Your task to perform on an android device: Open calendar and show me the second week of next month Image 0: 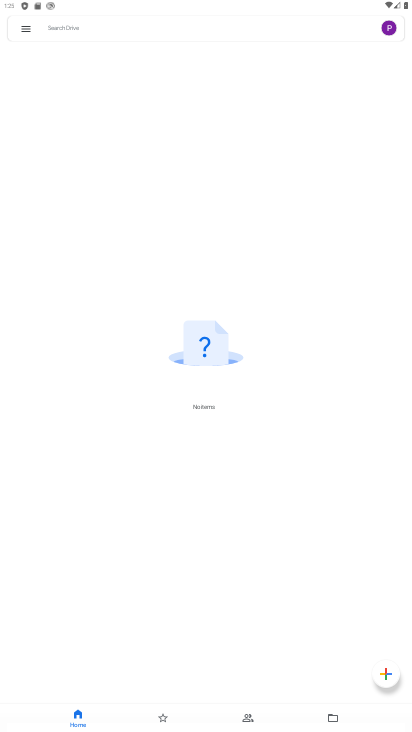
Step 0: press home button
Your task to perform on an android device: Open calendar and show me the second week of next month Image 1: 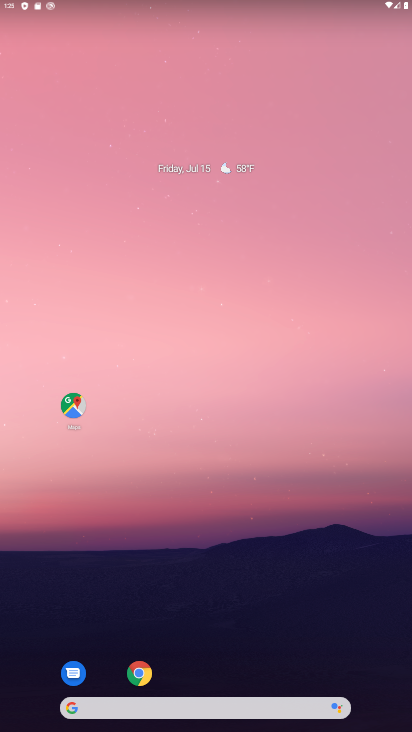
Step 1: drag from (228, 673) to (271, 112)
Your task to perform on an android device: Open calendar and show me the second week of next month Image 2: 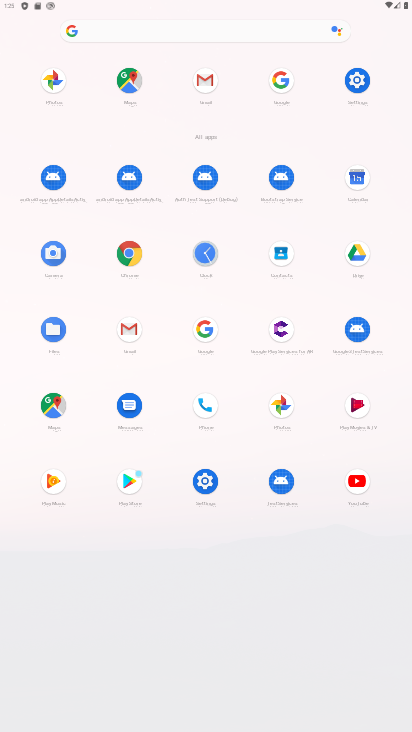
Step 2: click (353, 179)
Your task to perform on an android device: Open calendar and show me the second week of next month Image 3: 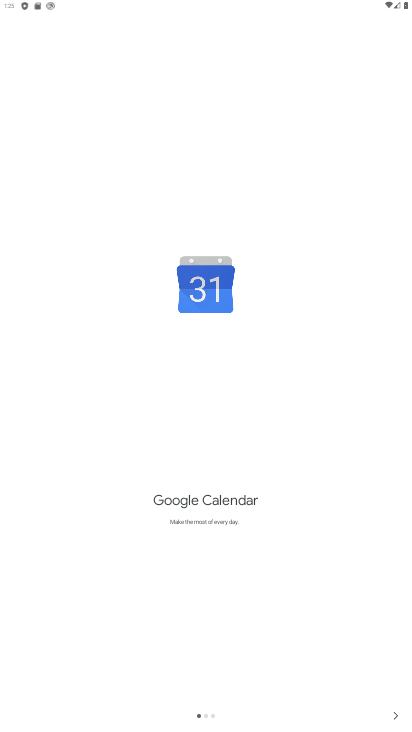
Step 3: click (400, 712)
Your task to perform on an android device: Open calendar and show me the second week of next month Image 4: 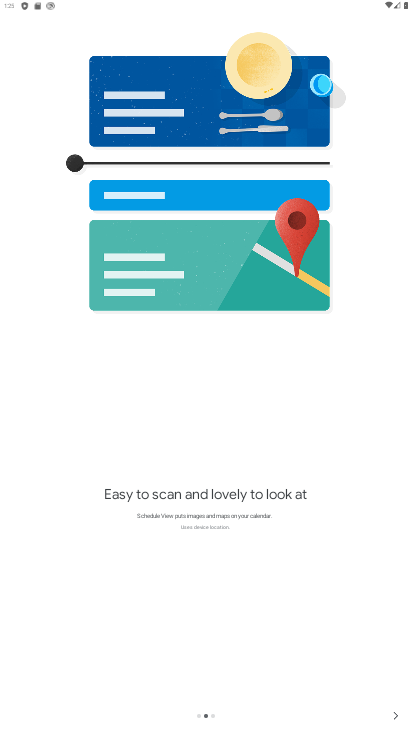
Step 4: click (392, 713)
Your task to perform on an android device: Open calendar and show me the second week of next month Image 5: 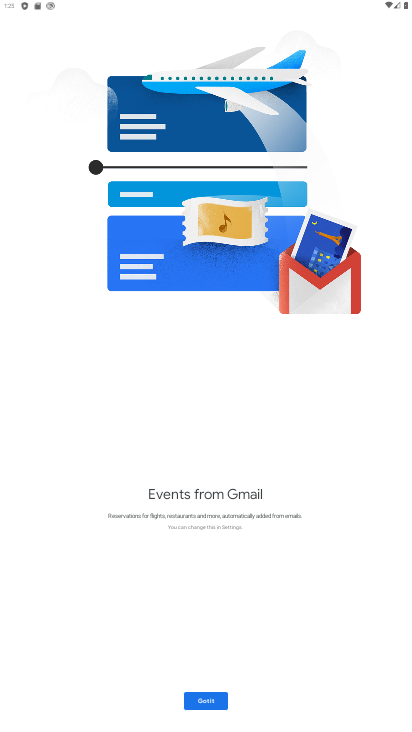
Step 5: click (205, 703)
Your task to perform on an android device: Open calendar and show me the second week of next month Image 6: 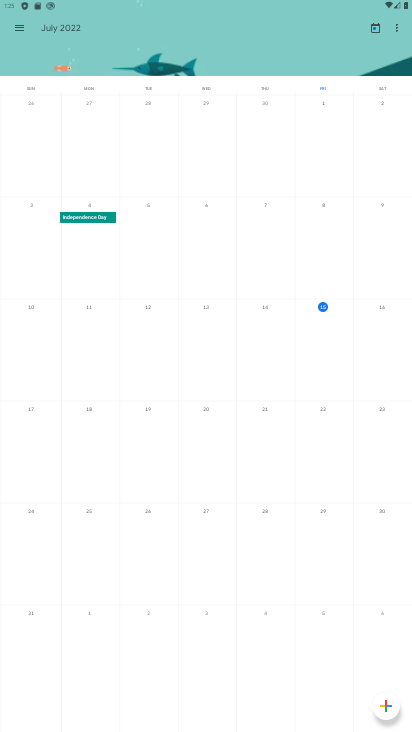
Step 6: drag from (385, 539) to (6, 478)
Your task to perform on an android device: Open calendar and show me the second week of next month Image 7: 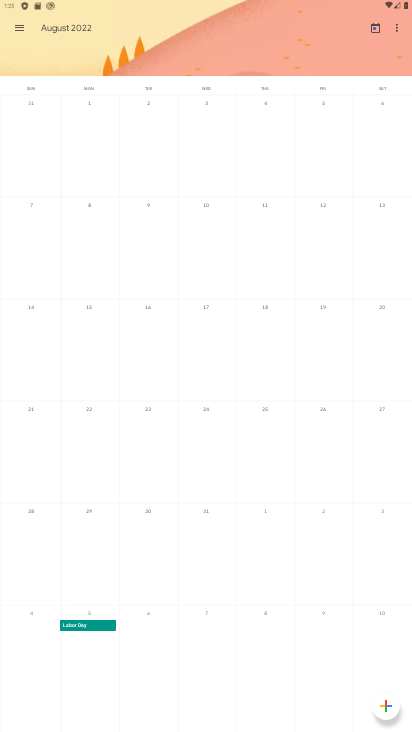
Step 7: click (263, 212)
Your task to perform on an android device: Open calendar and show me the second week of next month Image 8: 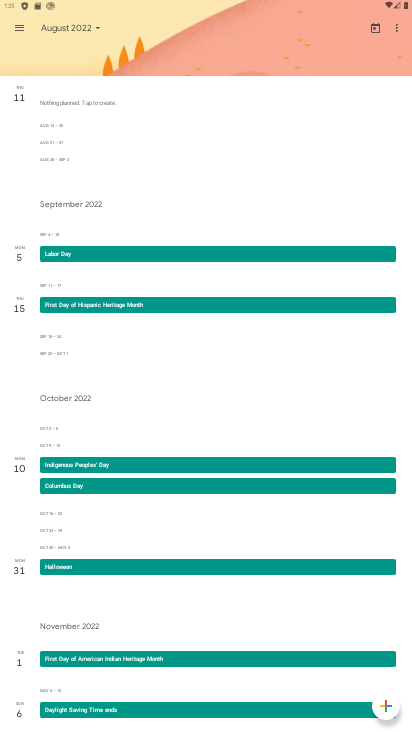
Step 8: task complete